Your task to perform on an android device: check out phone information Image 0: 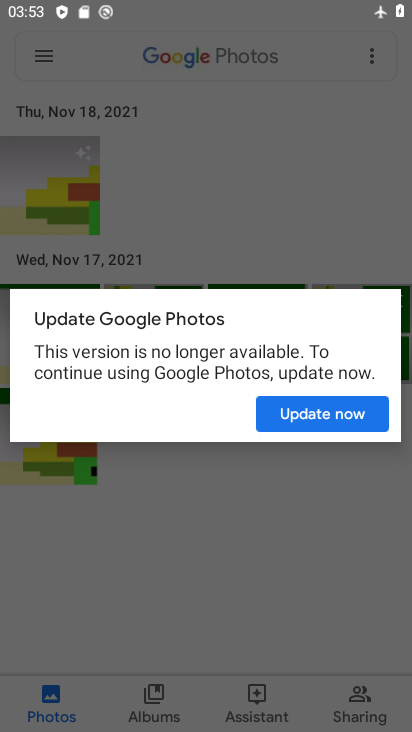
Step 0: press home button
Your task to perform on an android device: check out phone information Image 1: 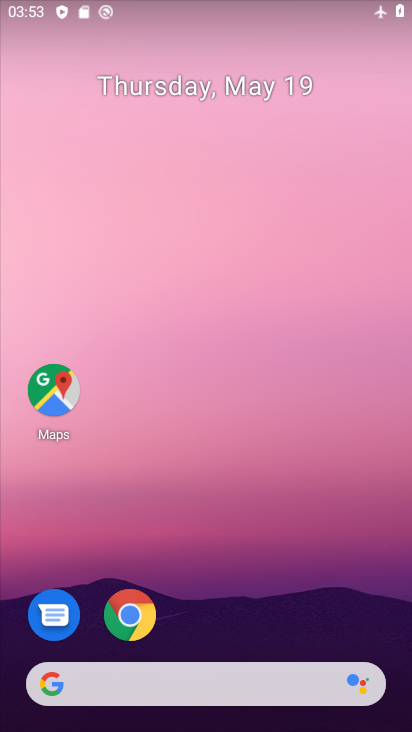
Step 1: drag from (266, 647) to (299, 9)
Your task to perform on an android device: check out phone information Image 2: 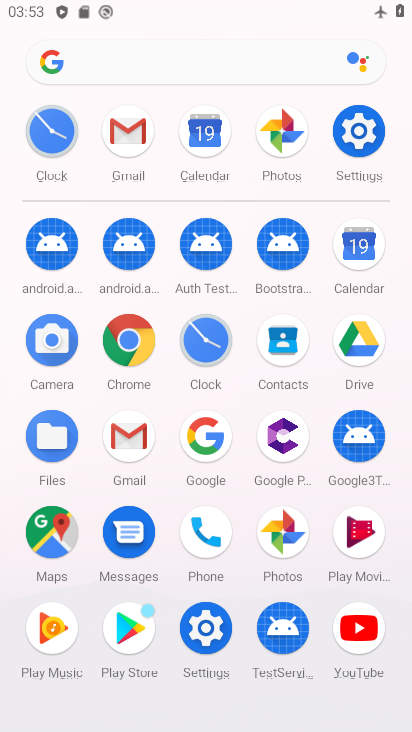
Step 2: click (355, 137)
Your task to perform on an android device: check out phone information Image 3: 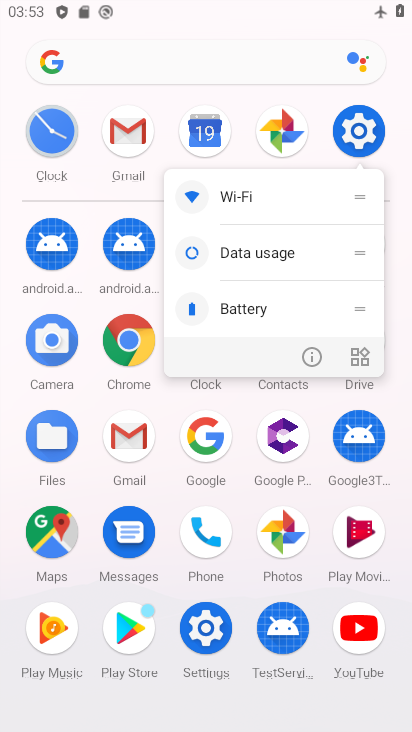
Step 3: click (355, 118)
Your task to perform on an android device: check out phone information Image 4: 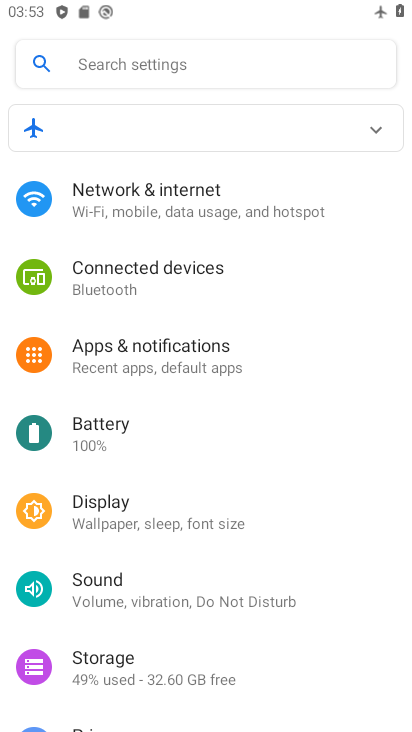
Step 4: drag from (319, 652) to (302, 102)
Your task to perform on an android device: check out phone information Image 5: 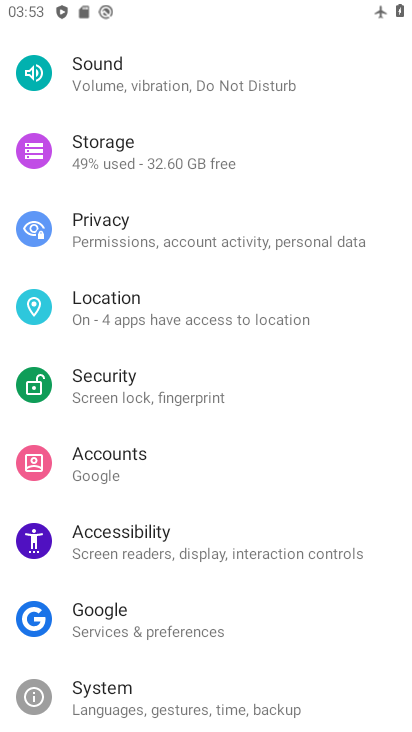
Step 5: drag from (271, 588) to (238, 117)
Your task to perform on an android device: check out phone information Image 6: 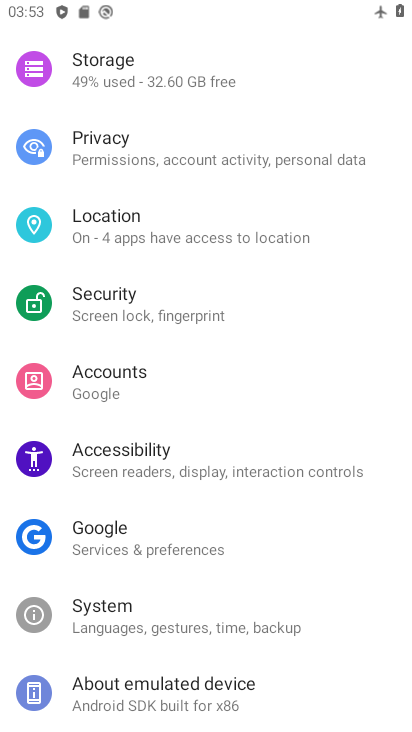
Step 6: click (145, 695)
Your task to perform on an android device: check out phone information Image 7: 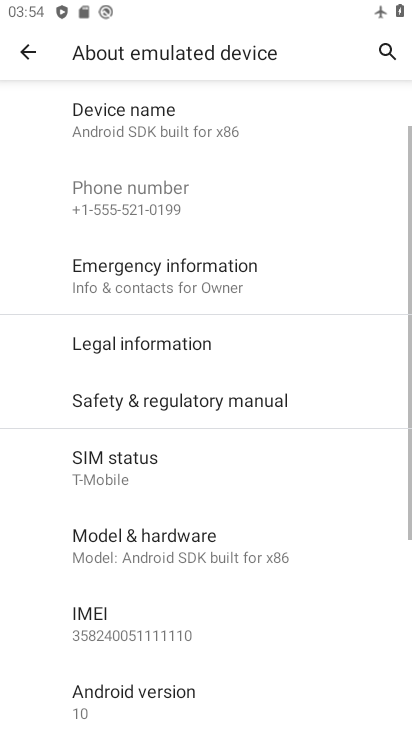
Step 7: task complete